Your task to perform on an android device: turn off data saver in the chrome app Image 0: 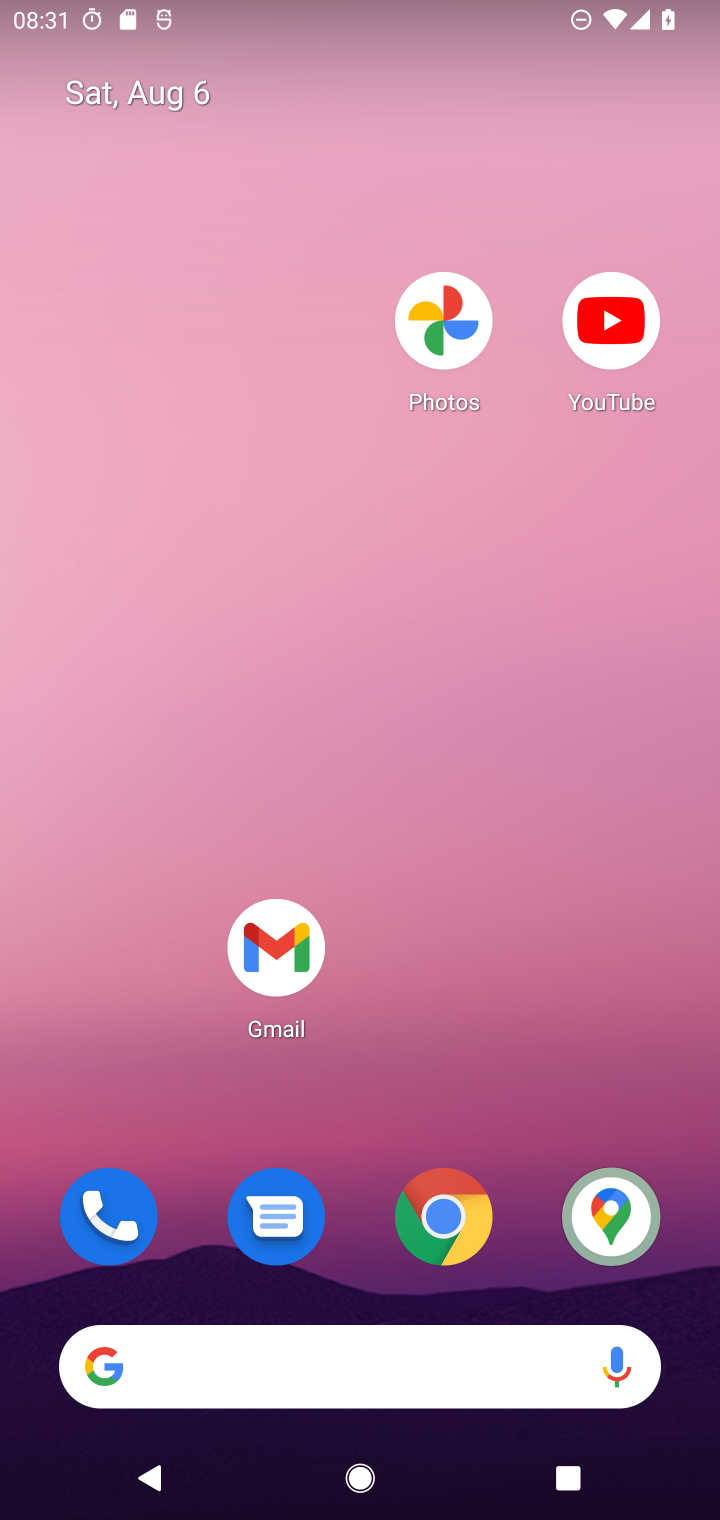
Step 0: drag from (477, 706) to (409, 48)
Your task to perform on an android device: turn off data saver in the chrome app Image 1: 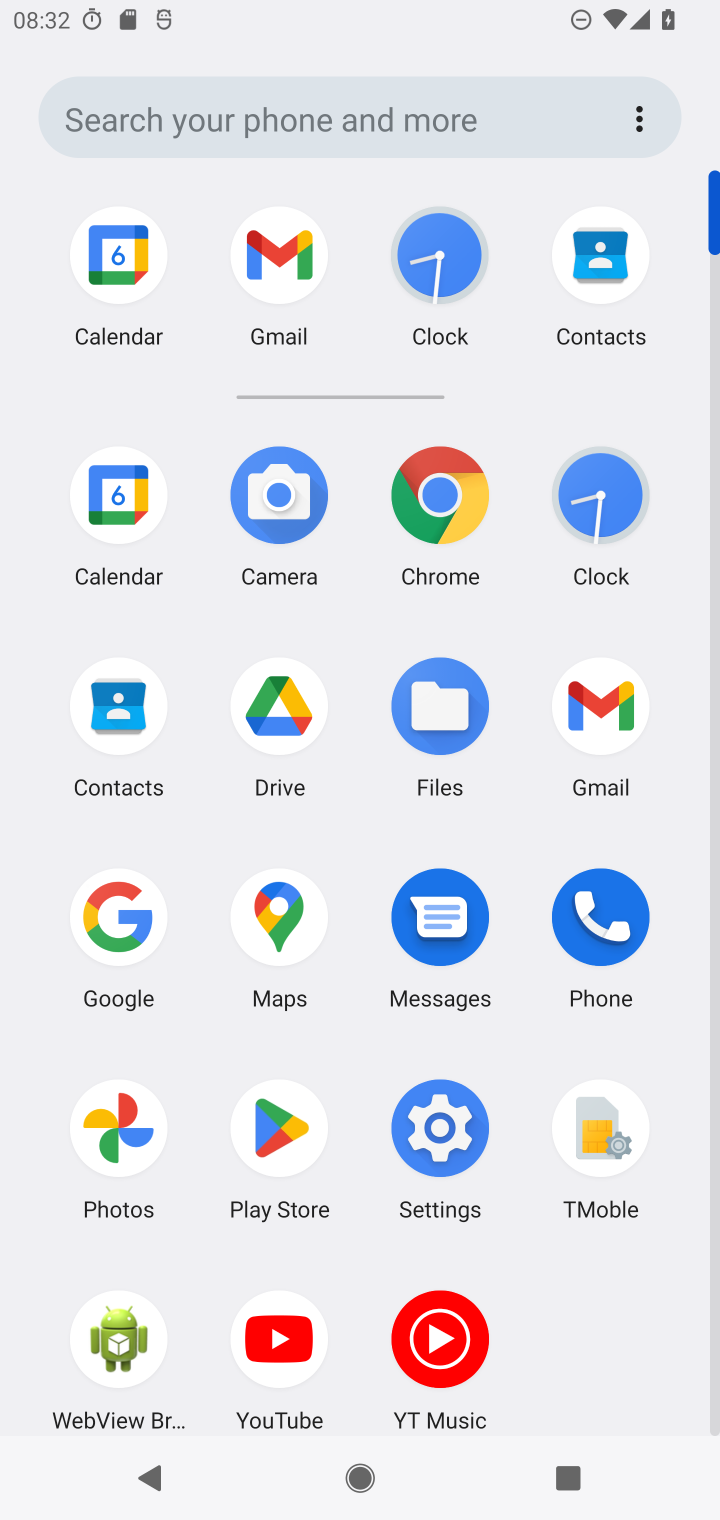
Step 1: click (441, 492)
Your task to perform on an android device: turn off data saver in the chrome app Image 2: 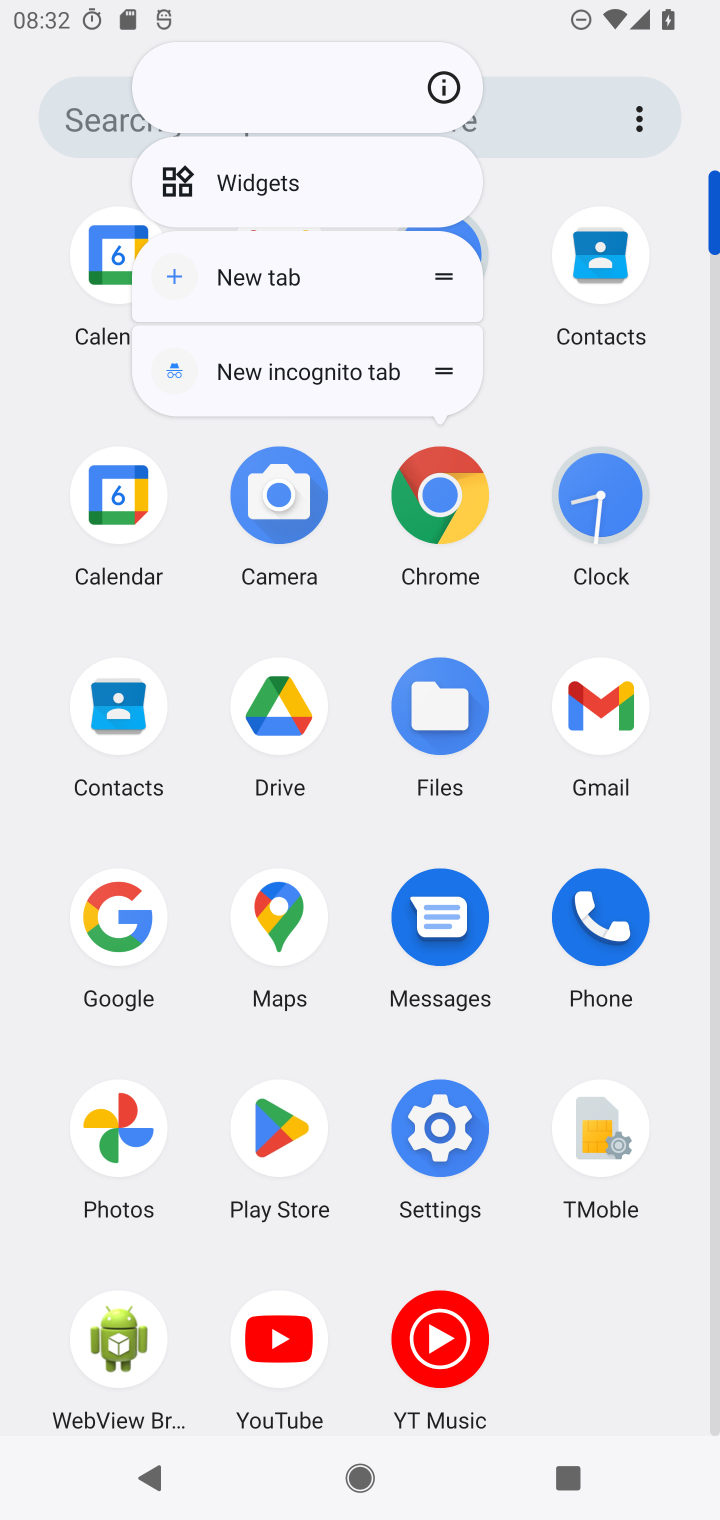
Step 2: click (448, 501)
Your task to perform on an android device: turn off data saver in the chrome app Image 3: 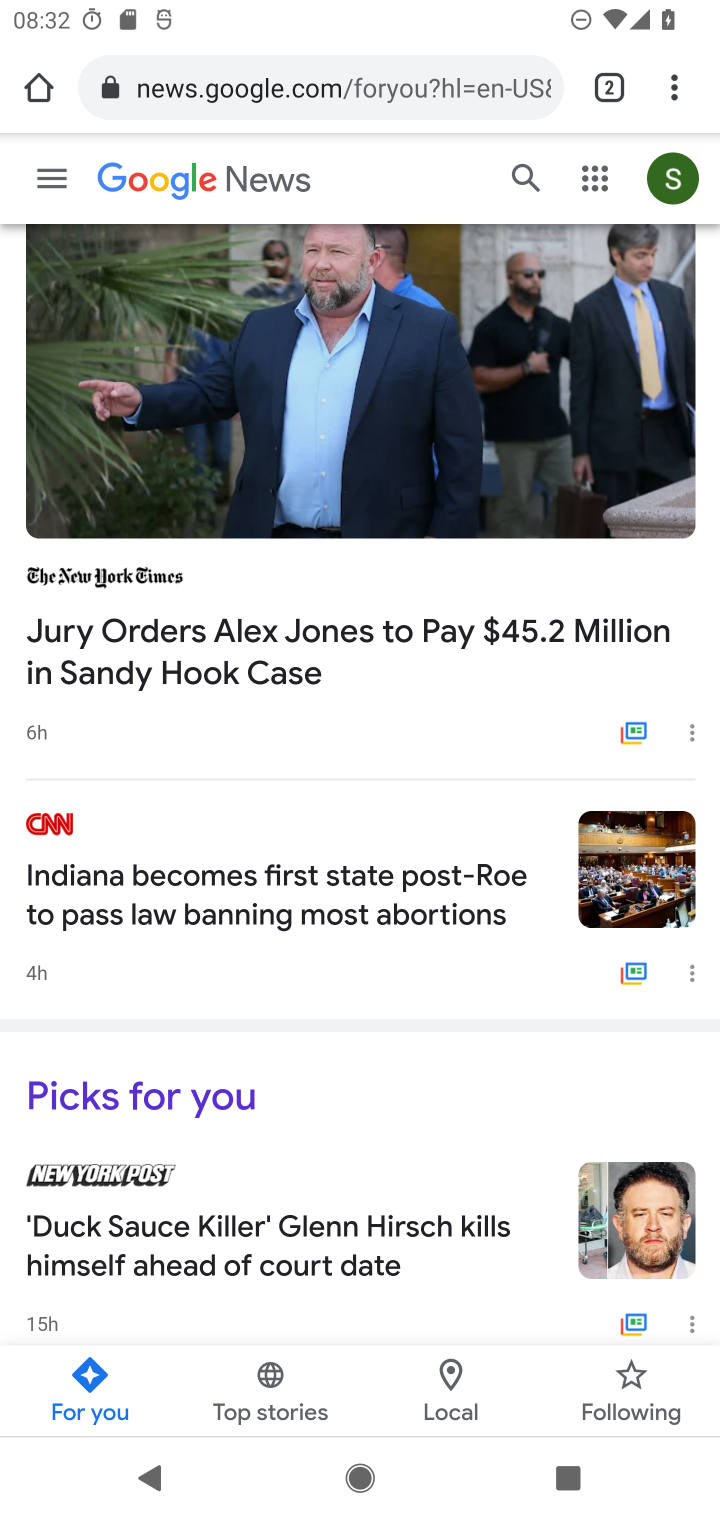
Step 3: drag from (669, 73) to (391, 1182)
Your task to perform on an android device: turn off data saver in the chrome app Image 4: 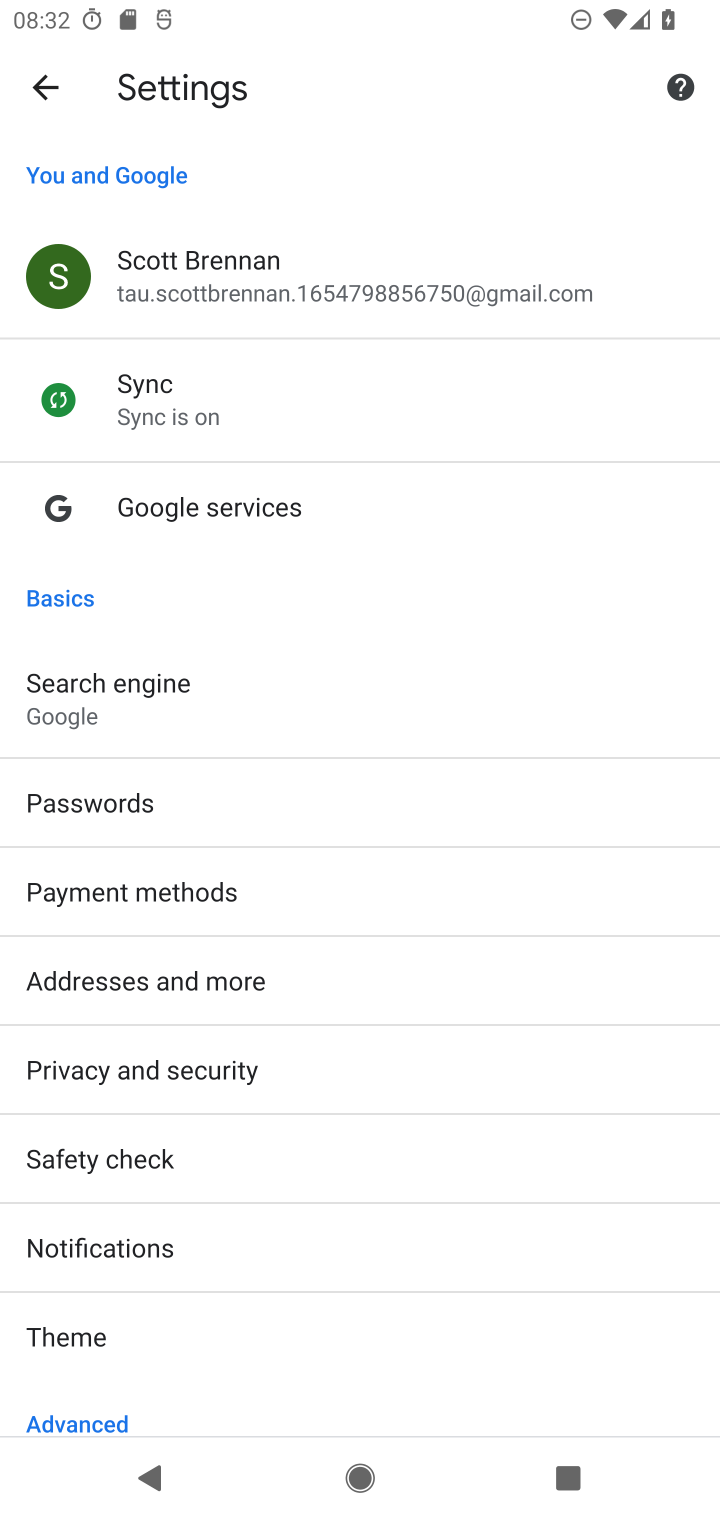
Step 4: drag from (341, 1191) to (455, 208)
Your task to perform on an android device: turn off data saver in the chrome app Image 5: 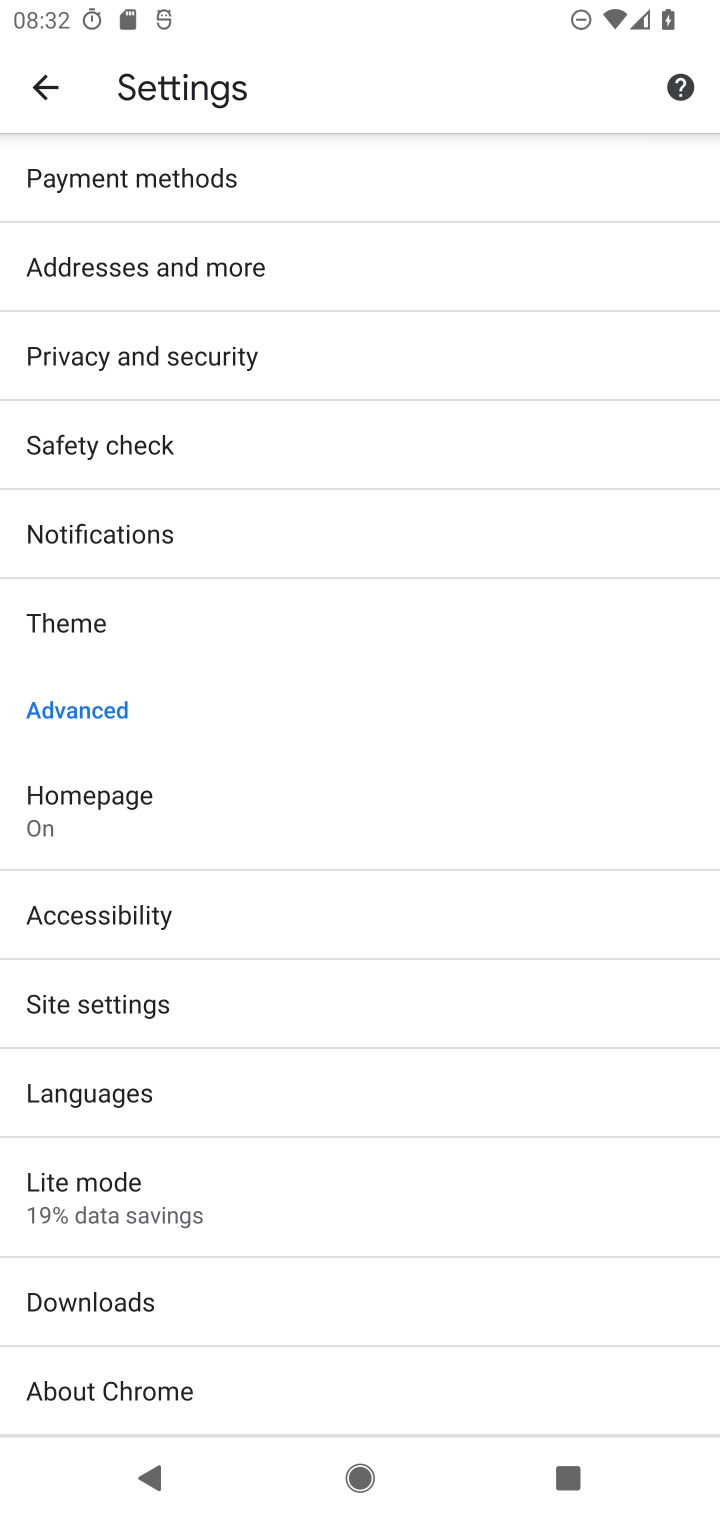
Step 5: click (100, 1202)
Your task to perform on an android device: turn off data saver in the chrome app Image 6: 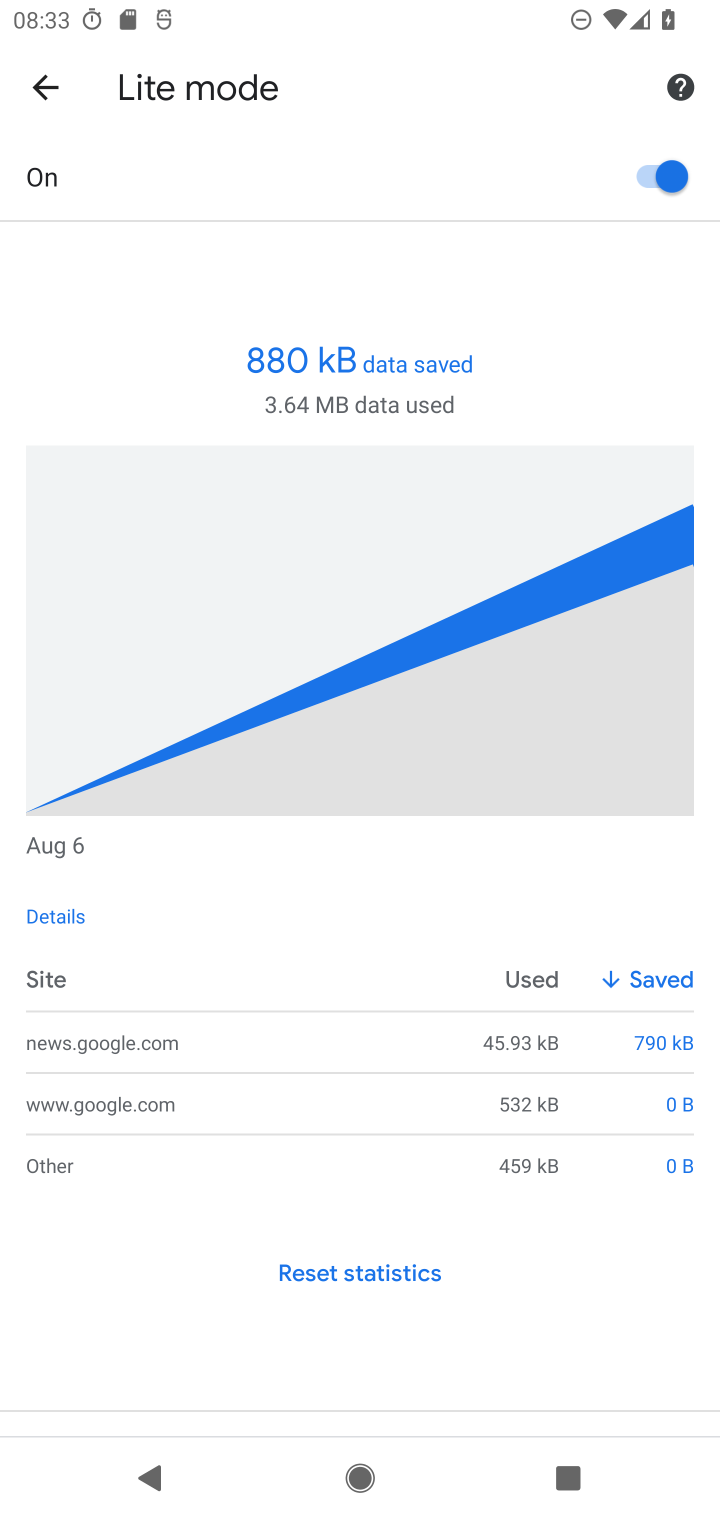
Step 6: click (670, 163)
Your task to perform on an android device: turn off data saver in the chrome app Image 7: 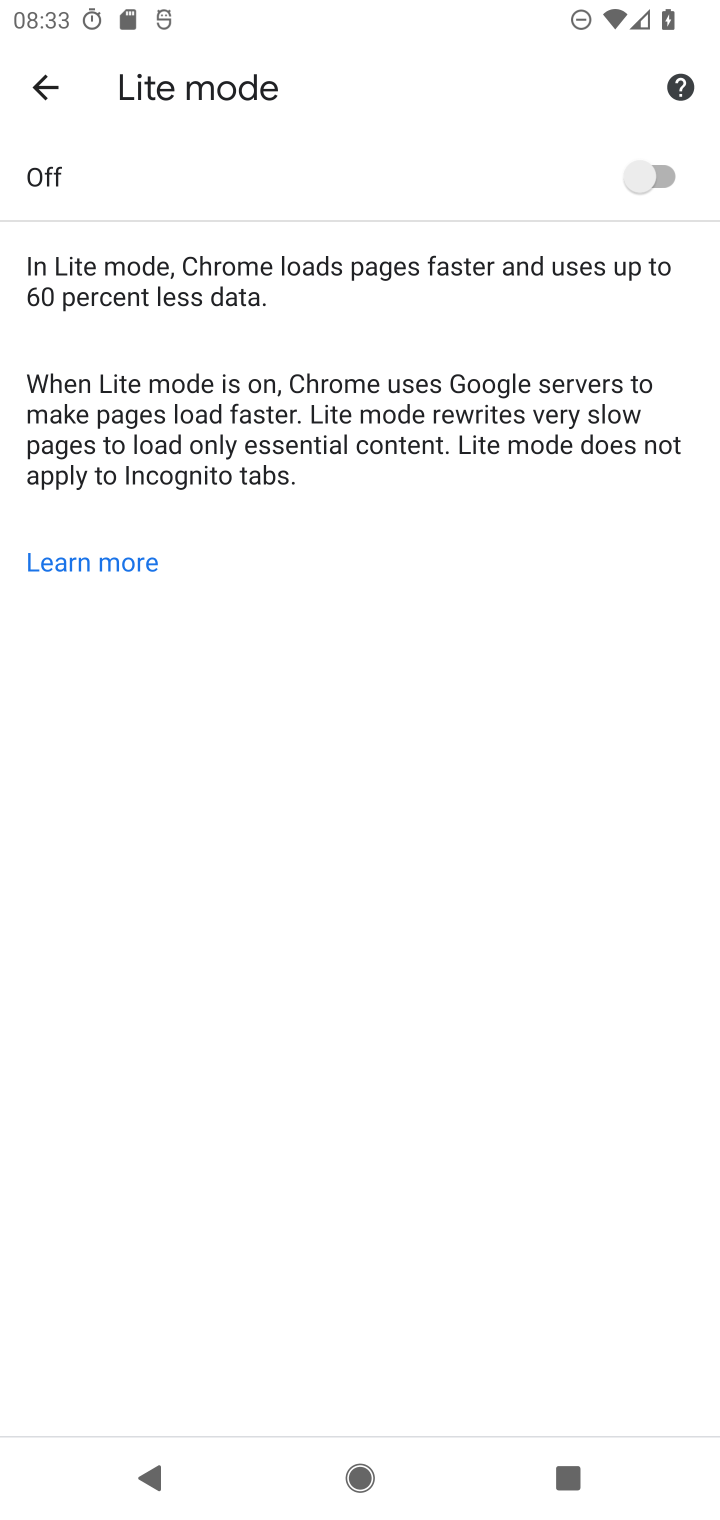
Step 7: task complete